Your task to perform on an android device: Is it going to rain today? Image 0: 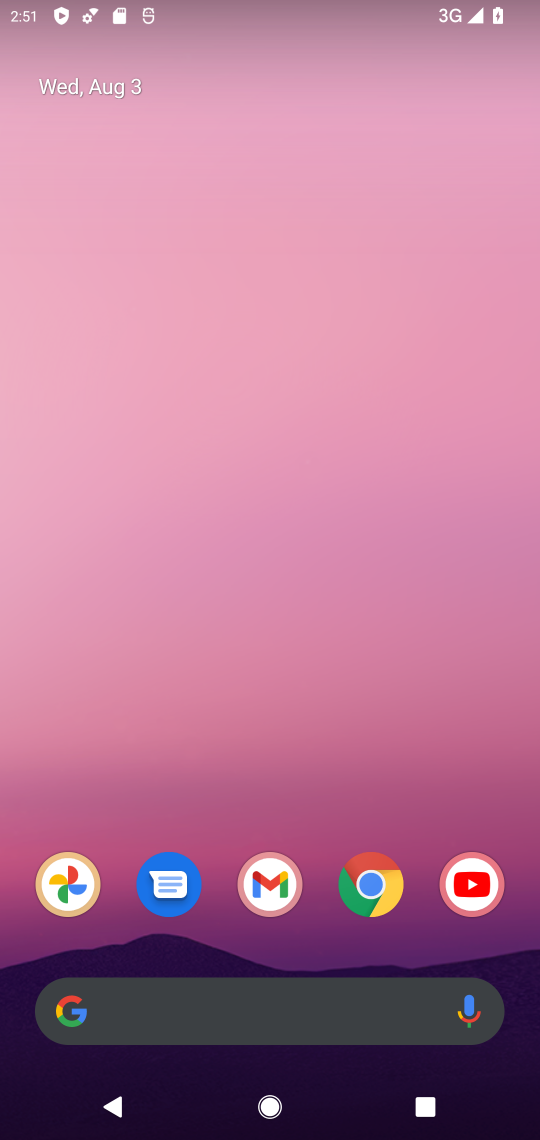
Step 0: click (218, 1009)
Your task to perform on an android device: Is it going to rain today? Image 1: 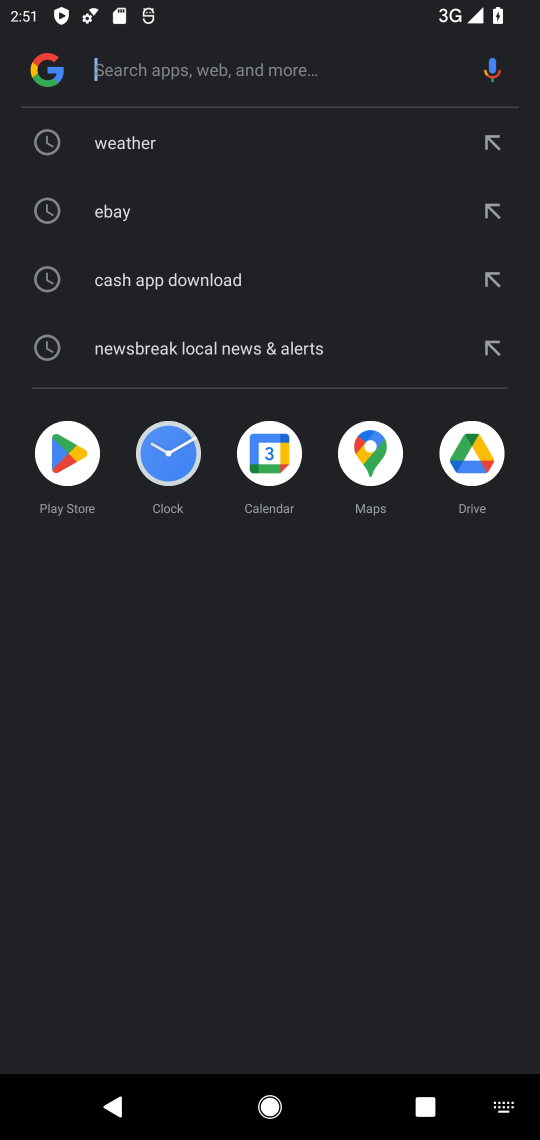
Step 1: click (189, 120)
Your task to perform on an android device: Is it going to rain today? Image 2: 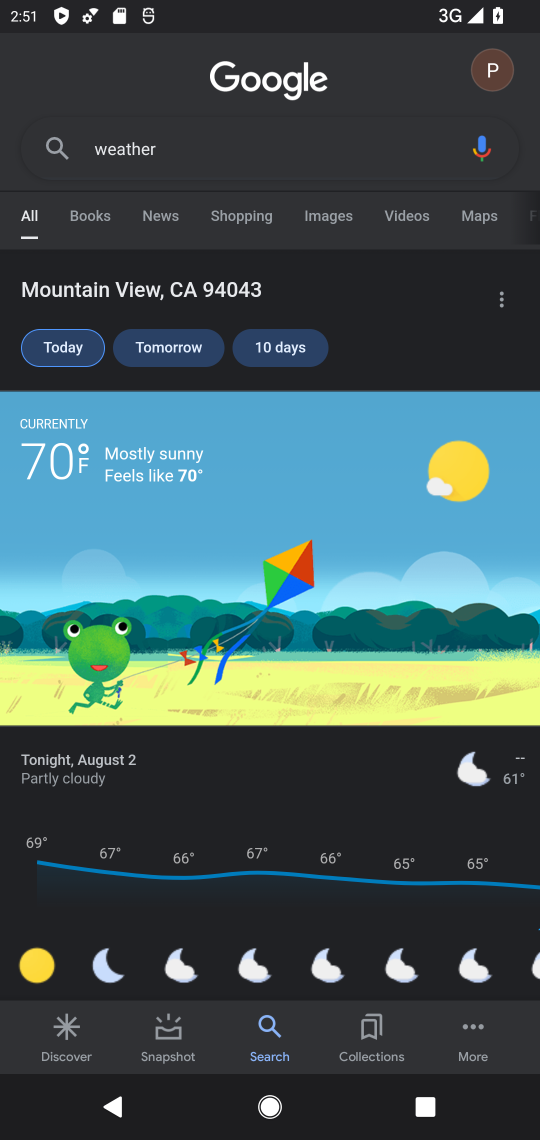
Step 2: task complete